Your task to perform on an android device: Open Yahoo.com Image 0: 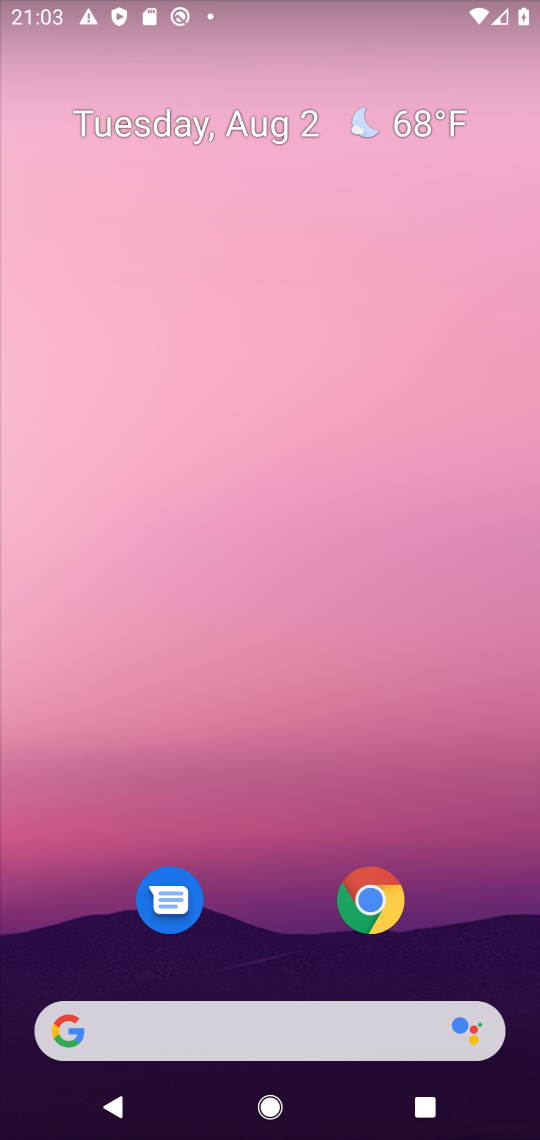
Step 0: click (261, 1042)
Your task to perform on an android device: Open Yahoo.com Image 1: 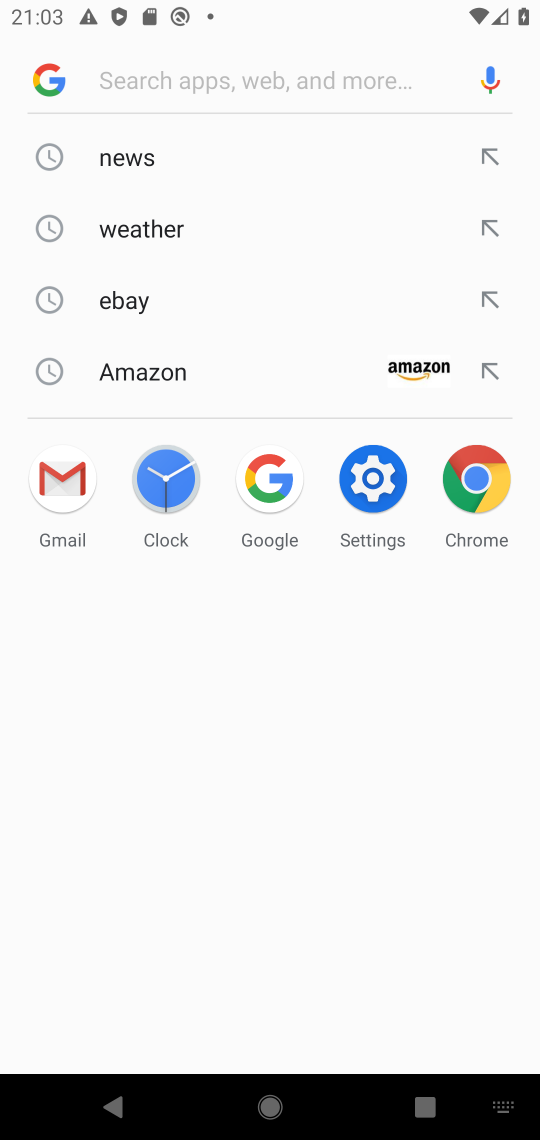
Step 1: type "yahoo.com"
Your task to perform on an android device: Open Yahoo.com Image 2: 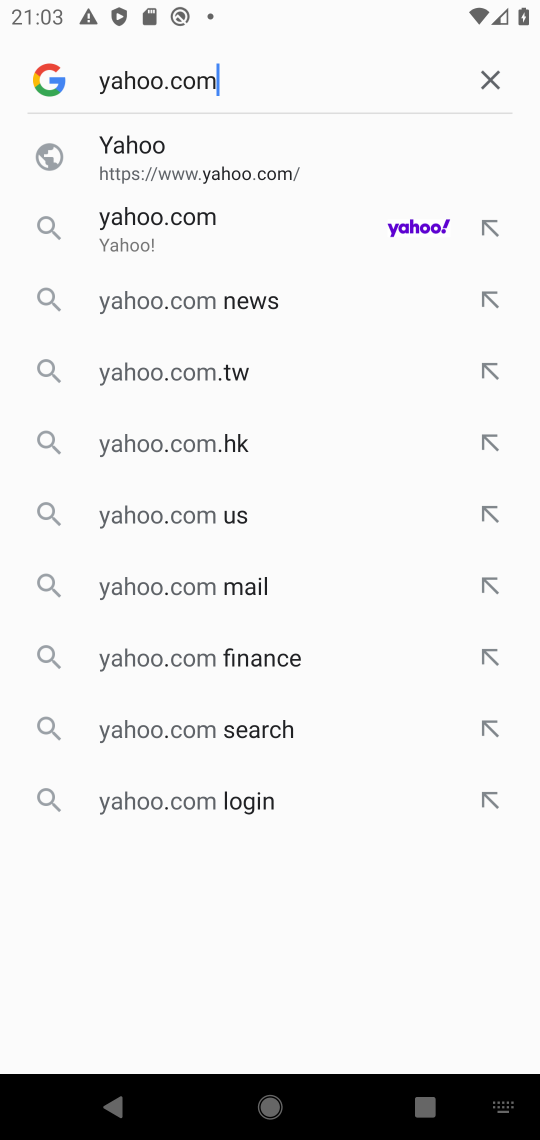
Step 2: click (214, 218)
Your task to perform on an android device: Open Yahoo.com Image 3: 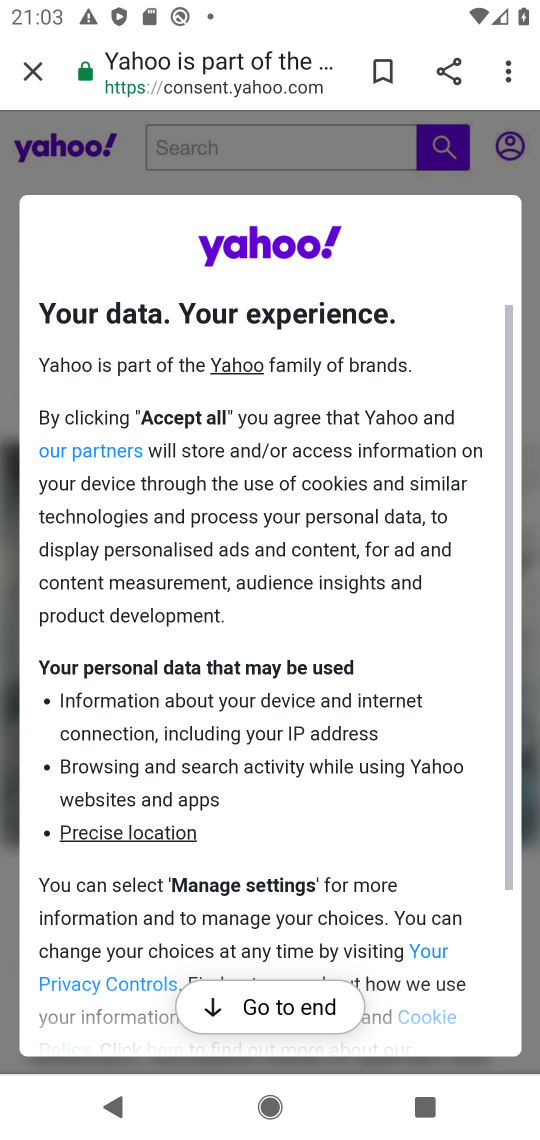
Step 3: click (292, 1007)
Your task to perform on an android device: Open Yahoo.com Image 4: 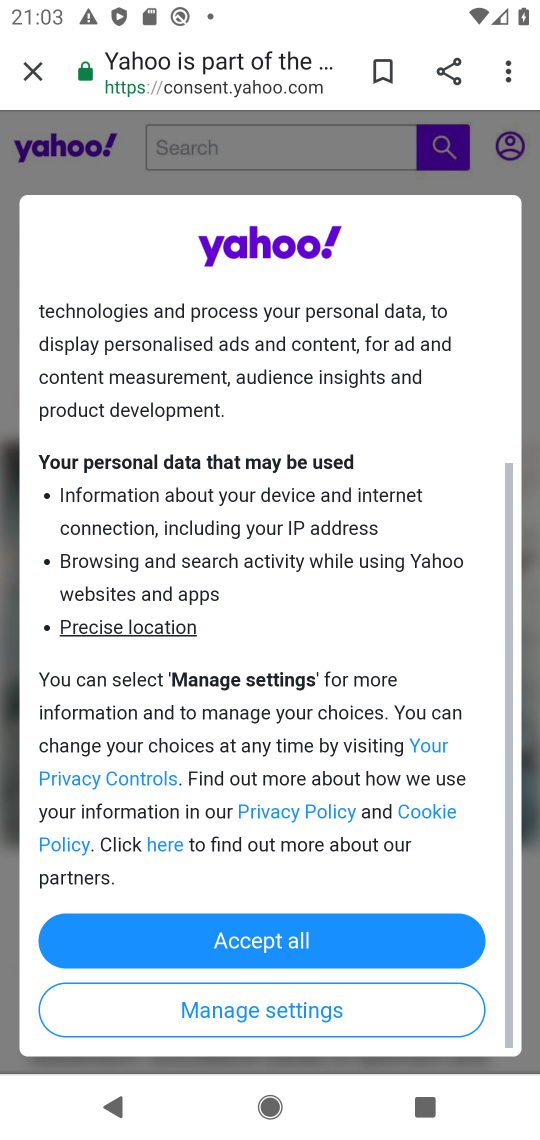
Step 4: click (420, 930)
Your task to perform on an android device: Open Yahoo.com Image 5: 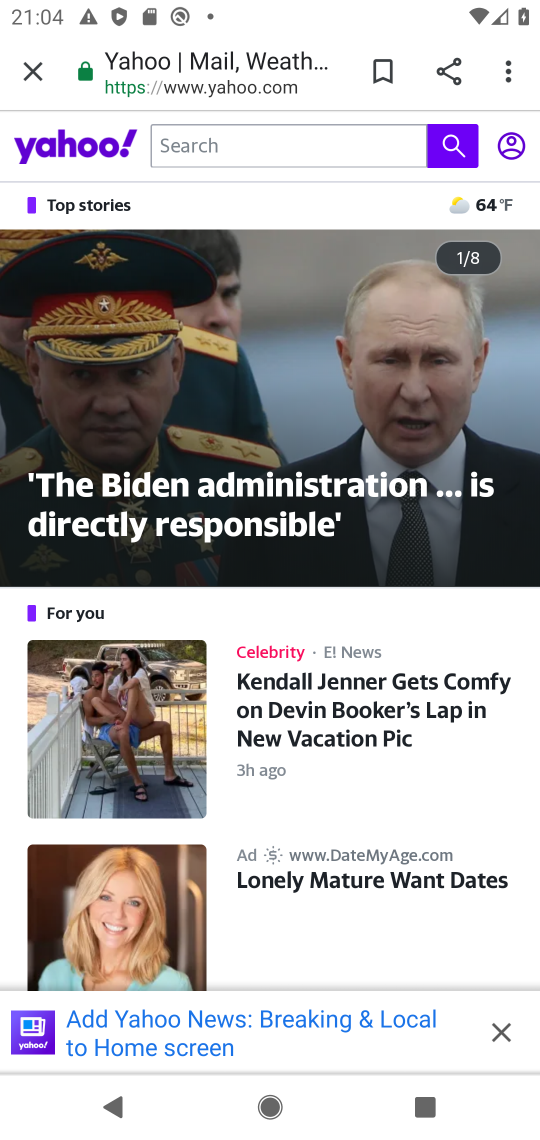
Step 5: task complete